Your task to perform on an android device: stop showing notifications on the lock screen Image 0: 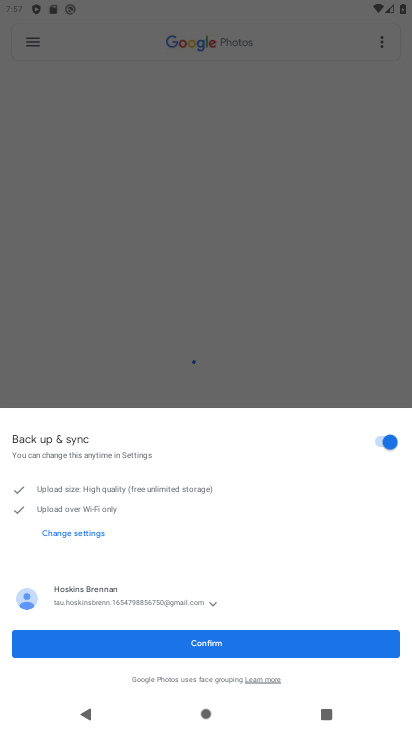
Step 0: press home button
Your task to perform on an android device: stop showing notifications on the lock screen Image 1: 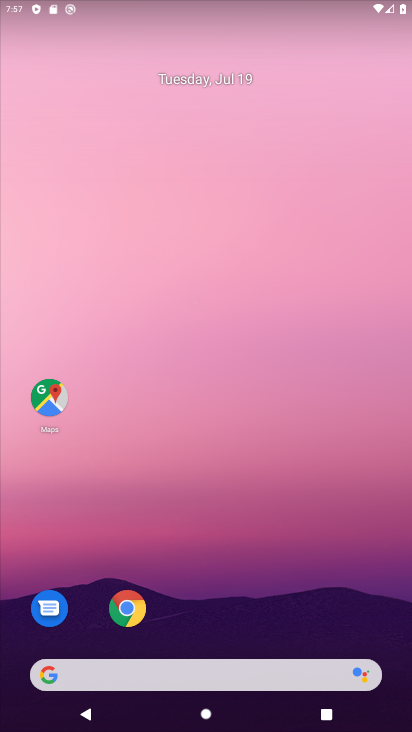
Step 1: drag from (188, 671) to (281, 0)
Your task to perform on an android device: stop showing notifications on the lock screen Image 2: 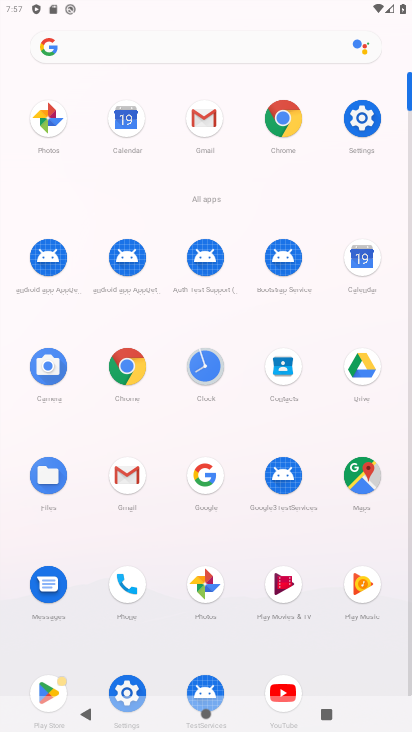
Step 2: click (370, 167)
Your task to perform on an android device: stop showing notifications on the lock screen Image 3: 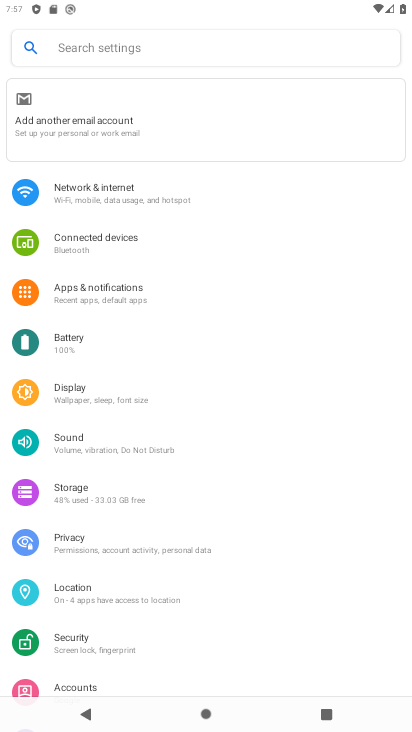
Step 3: click (108, 305)
Your task to perform on an android device: stop showing notifications on the lock screen Image 4: 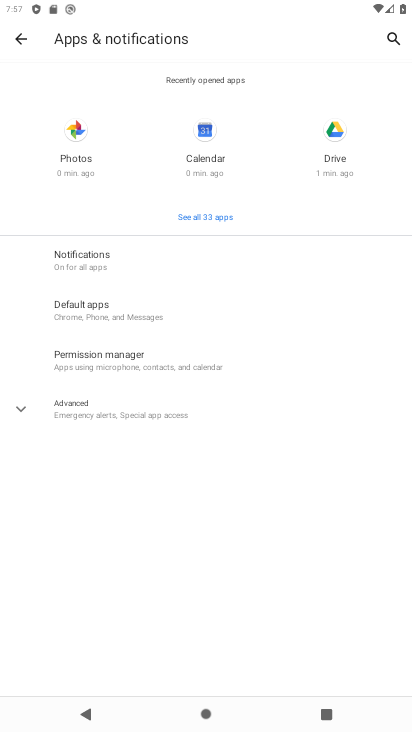
Step 4: click (111, 267)
Your task to perform on an android device: stop showing notifications on the lock screen Image 5: 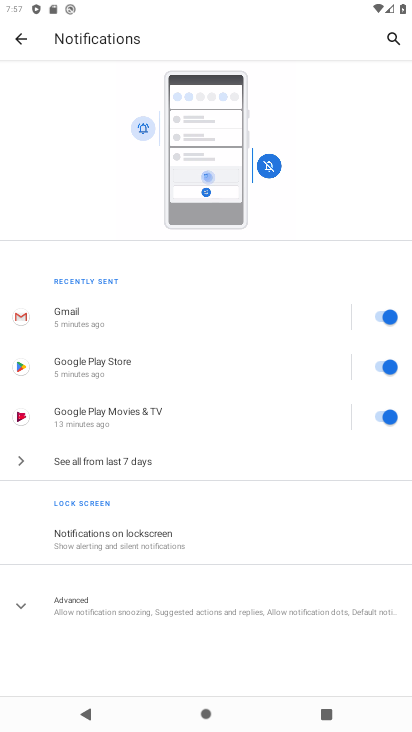
Step 5: click (166, 531)
Your task to perform on an android device: stop showing notifications on the lock screen Image 6: 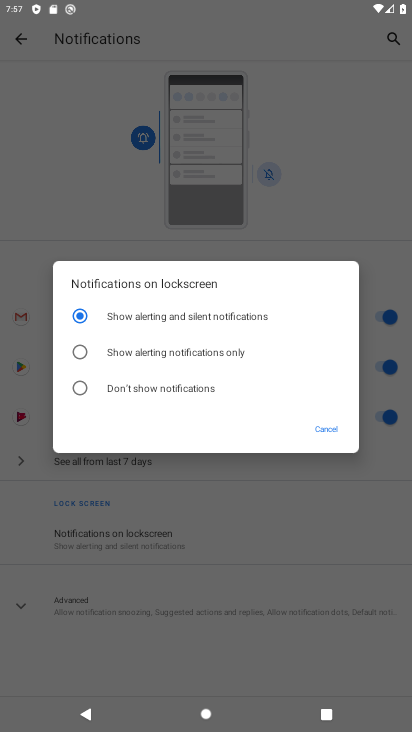
Step 6: click (127, 400)
Your task to perform on an android device: stop showing notifications on the lock screen Image 7: 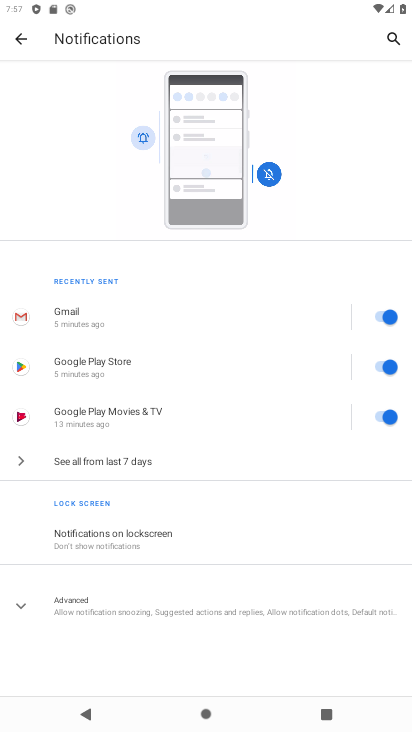
Step 7: task complete